Your task to perform on an android device: turn off data saver in the chrome app Image 0: 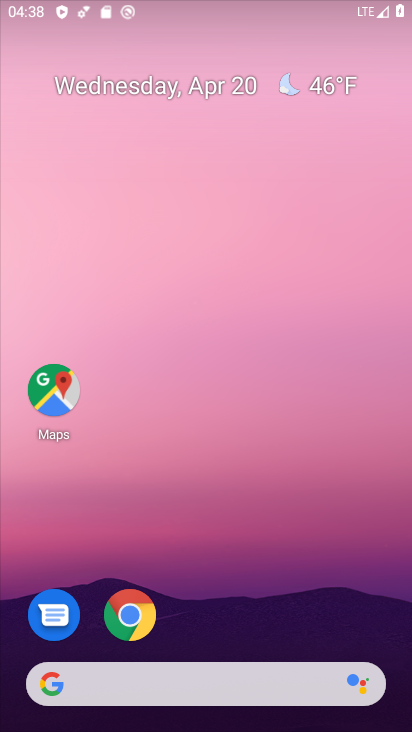
Step 0: drag from (247, 471) to (310, 80)
Your task to perform on an android device: turn off data saver in the chrome app Image 1: 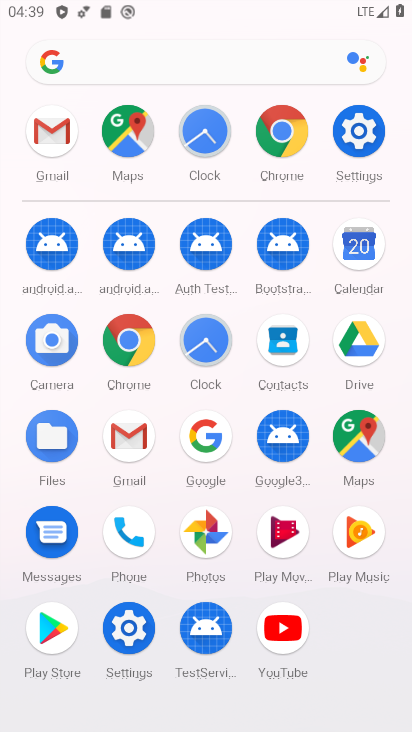
Step 1: click (281, 134)
Your task to perform on an android device: turn off data saver in the chrome app Image 2: 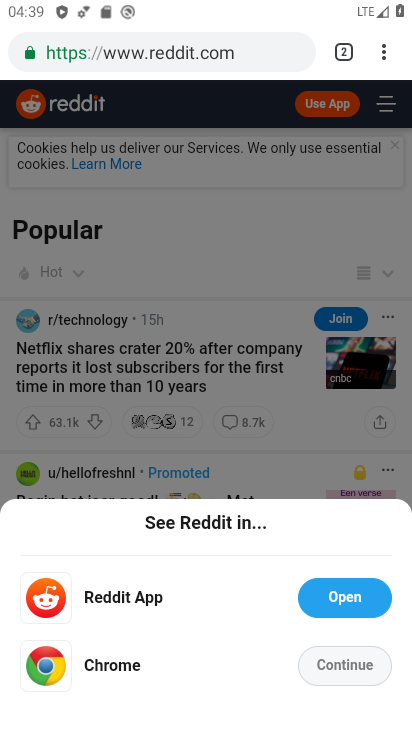
Step 2: click (381, 49)
Your task to perform on an android device: turn off data saver in the chrome app Image 3: 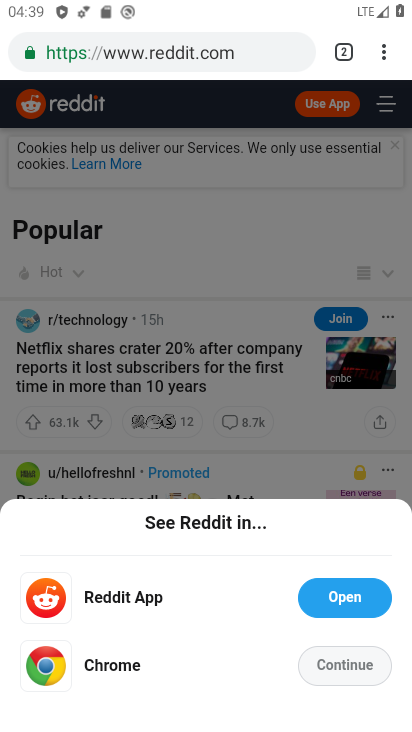
Step 3: click (381, 49)
Your task to perform on an android device: turn off data saver in the chrome app Image 4: 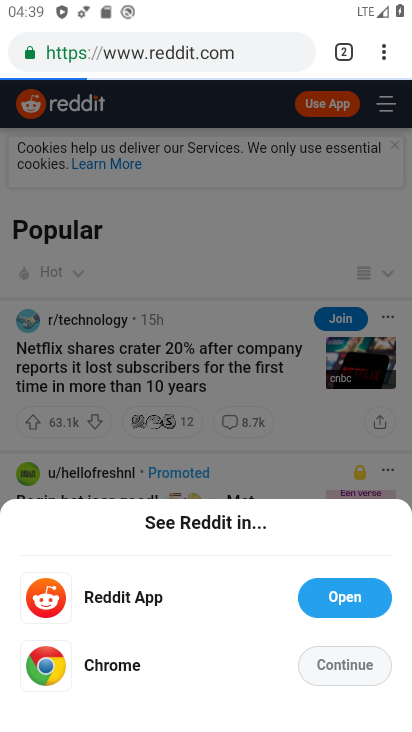
Step 4: drag from (381, 49) to (235, 629)
Your task to perform on an android device: turn off data saver in the chrome app Image 5: 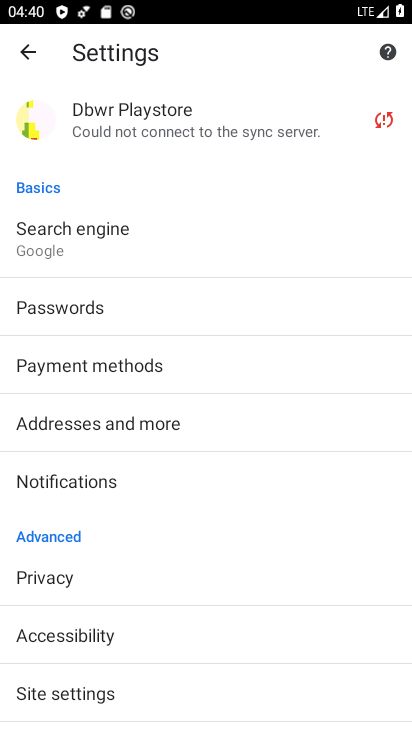
Step 5: drag from (134, 666) to (251, 155)
Your task to perform on an android device: turn off data saver in the chrome app Image 6: 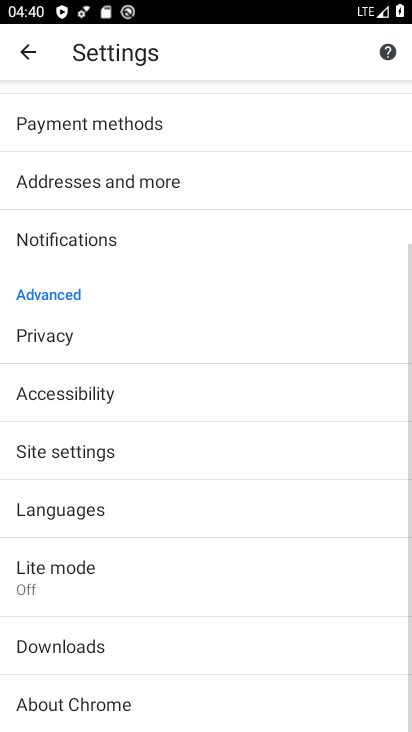
Step 6: click (78, 582)
Your task to perform on an android device: turn off data saver in the chrome app Image 7: 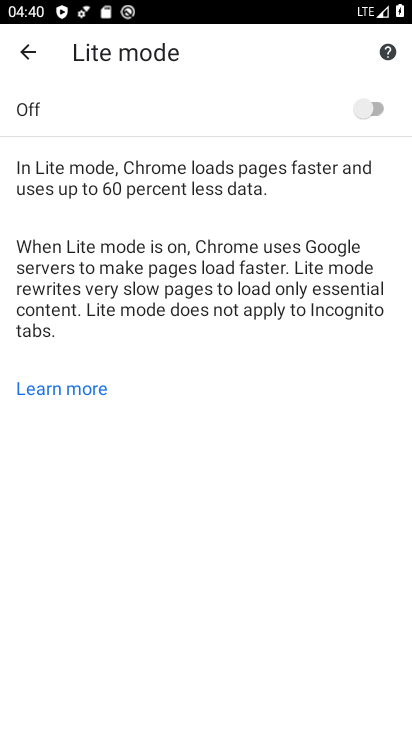
Step 7: task complete